Your task to perform on an android device: Search for a 3d printer on aliexpress Image 0: 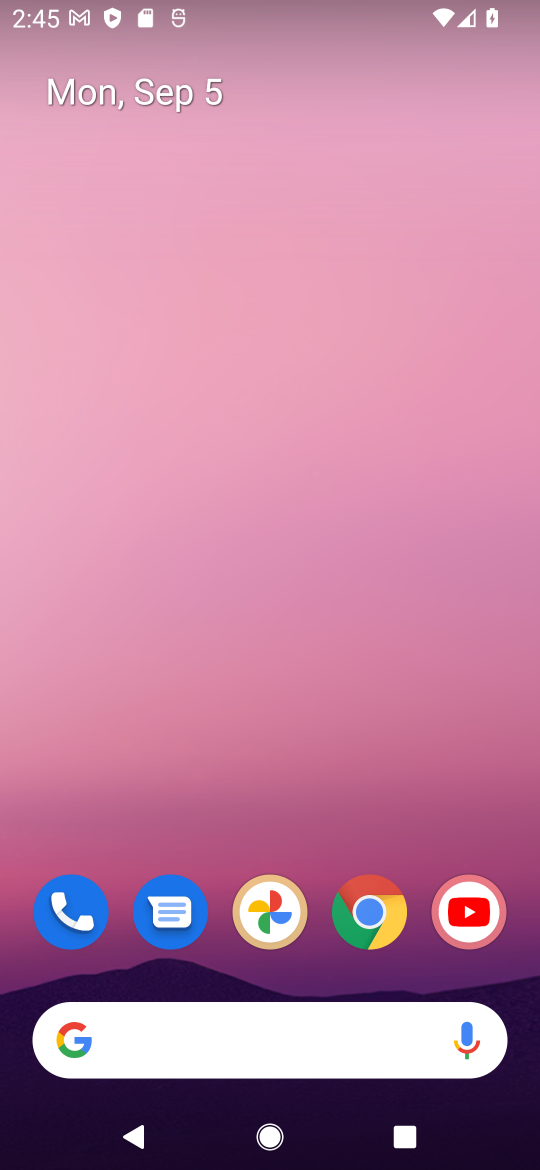
Step 0: click (381, 911)
Your task to perform on an android device: Search for a 3d printer on aliexpress Image 1: 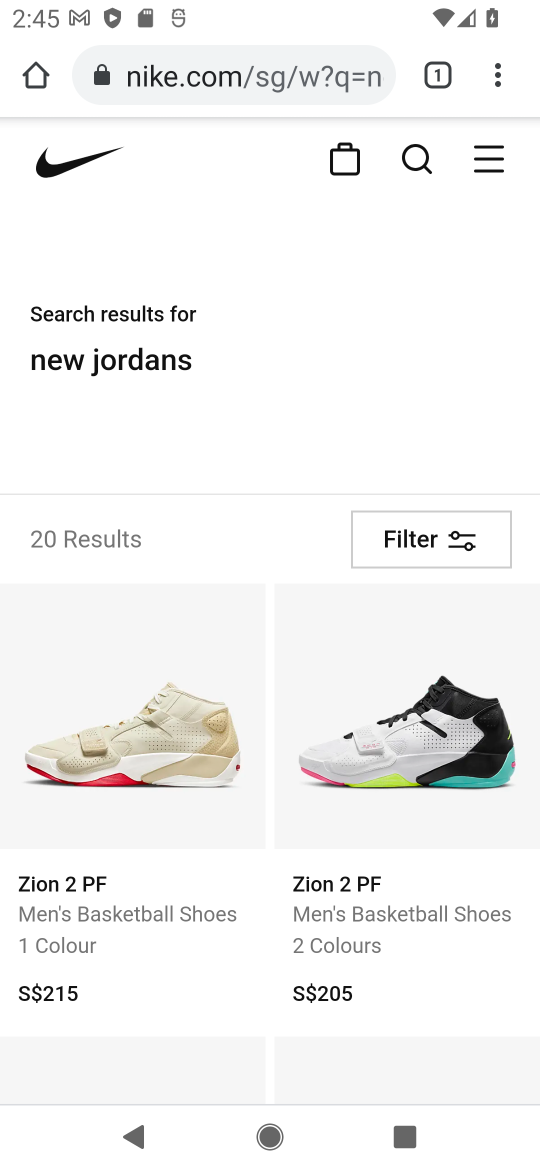
Step 1: click (221, 88)
Your task to perform on an android device: Search for a 3d printer on aliexpress Image 2: 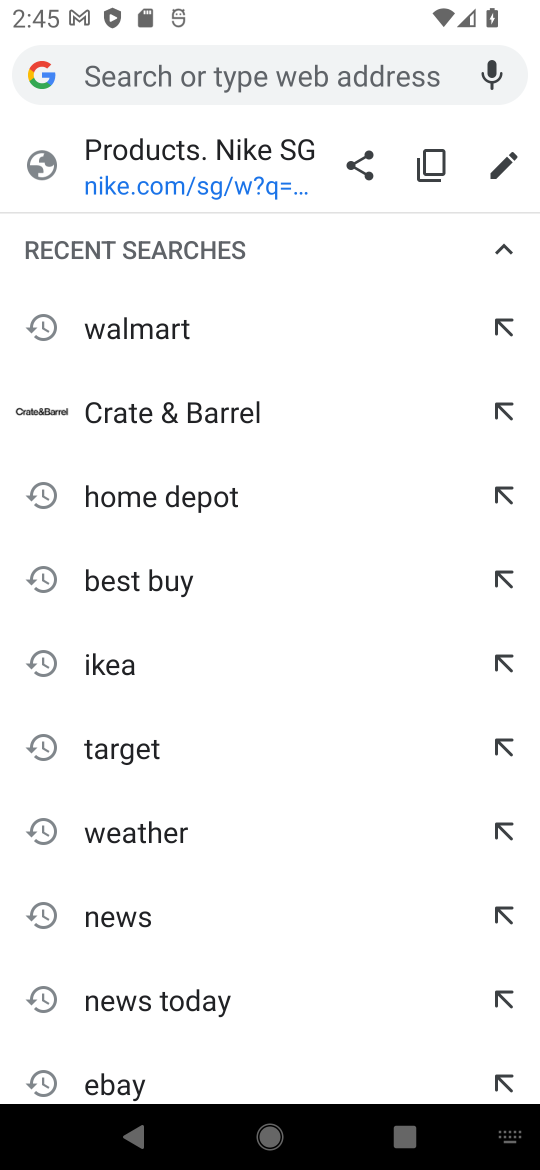
Step 2: type "aliexpress"
Your task to perform on an android device: Search for a 3d printer on aliexpress Image 3: 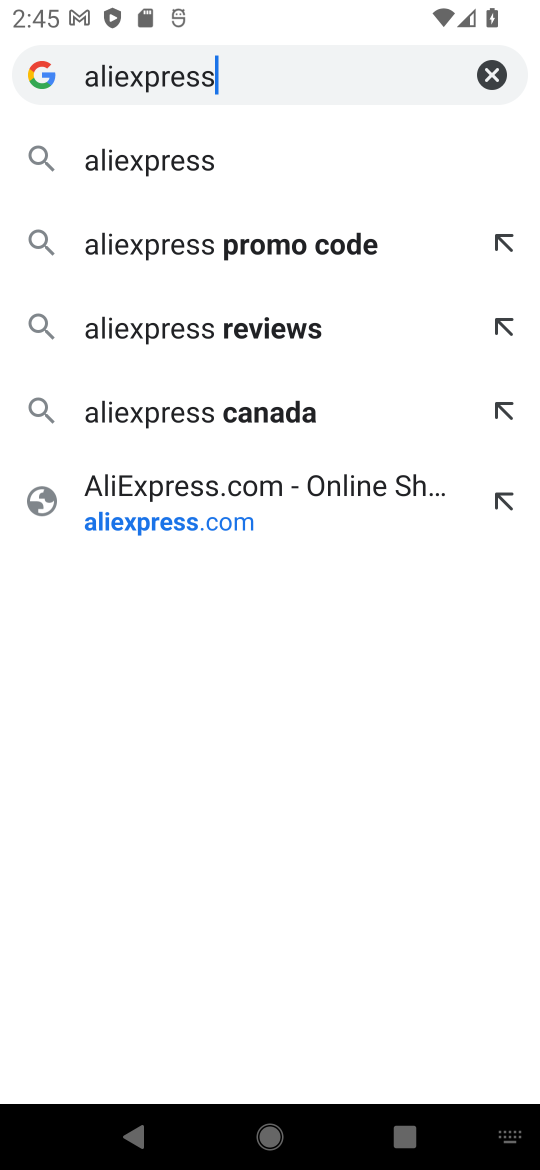
Step 3: press enter
Your task to perform on an android device: Search for a 3d printer on aliexpress Image 4: 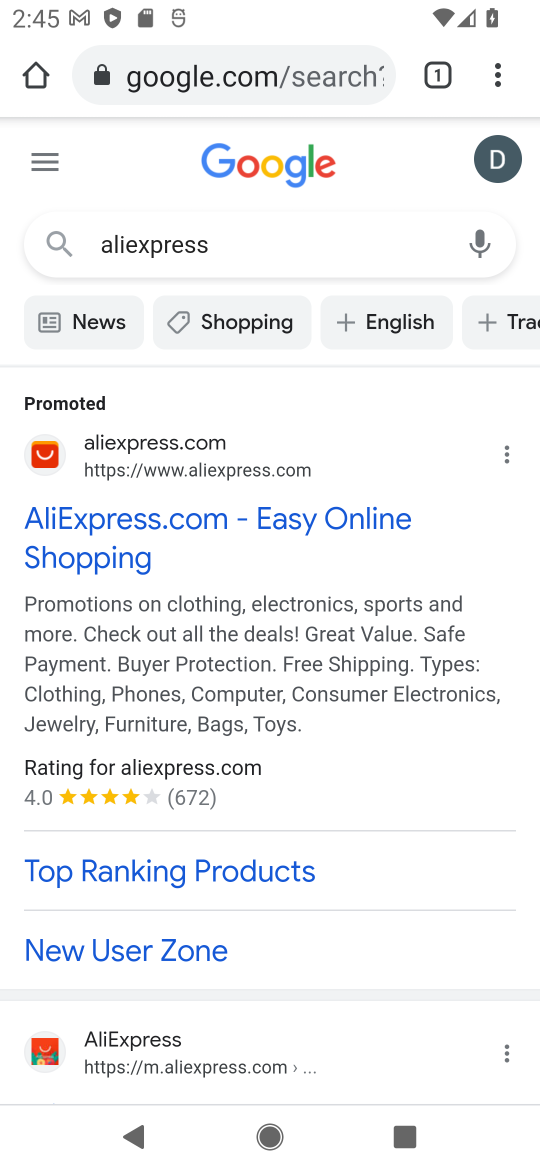
Step 4: click (103, 523)
Your task to perform on an android device: Search for a 3d printer on aliexpress Image 5: 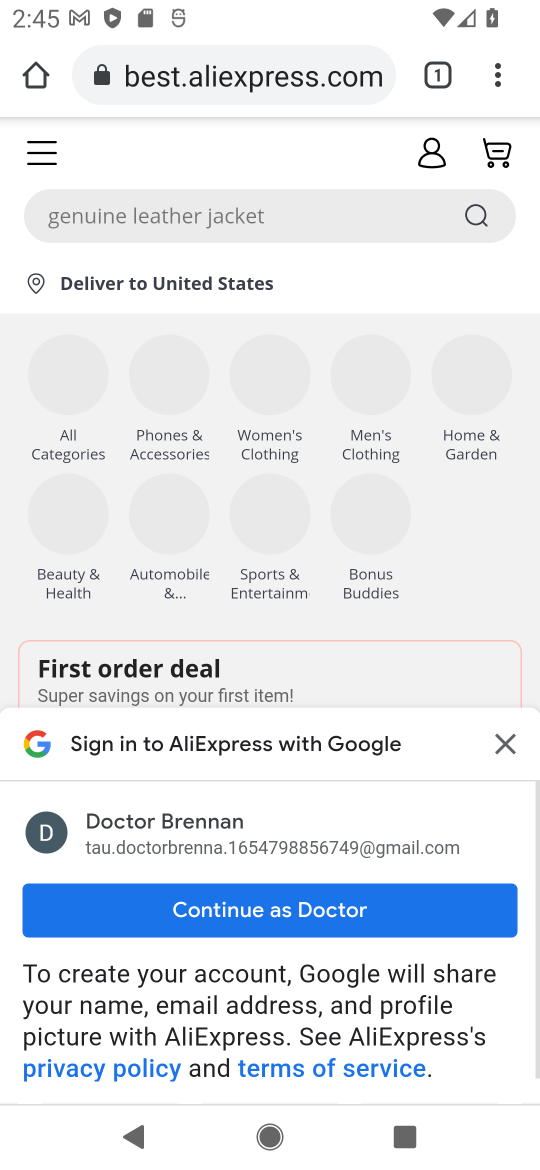
Step 5: click (243, 213)
Your task to perform on an android device: Search for a 3d printer on aliexpress Image 6: 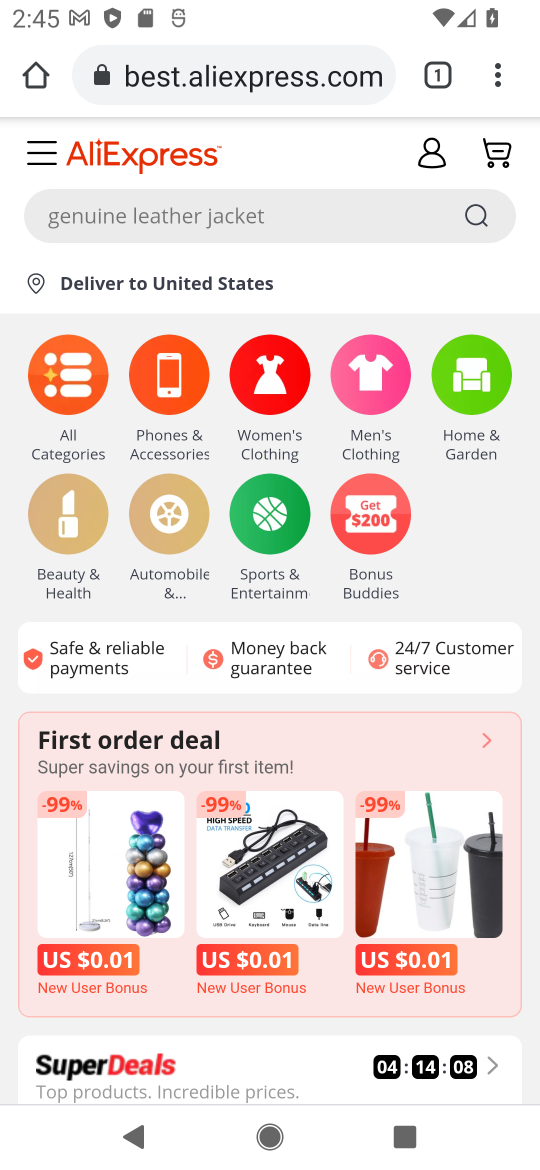
Step 6: click (243, 213)
Your task to perform on an android device: Search for a 3d printer on aliexpress Image 7: 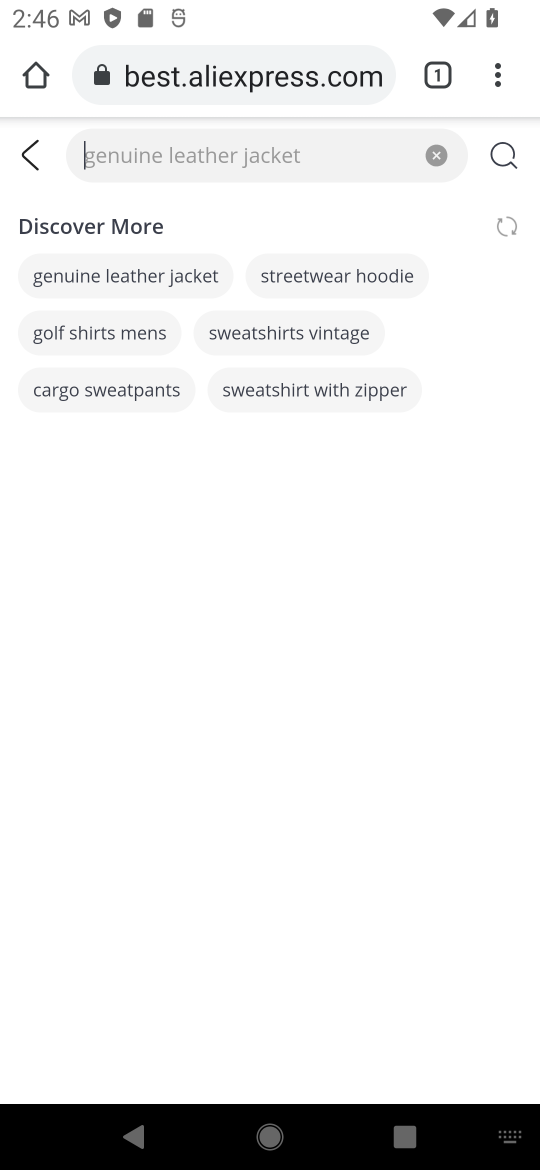
Step 7: type "3d printer"
Your task to perform on an android device: Search for a 3d printer on aliexpress Image 8: 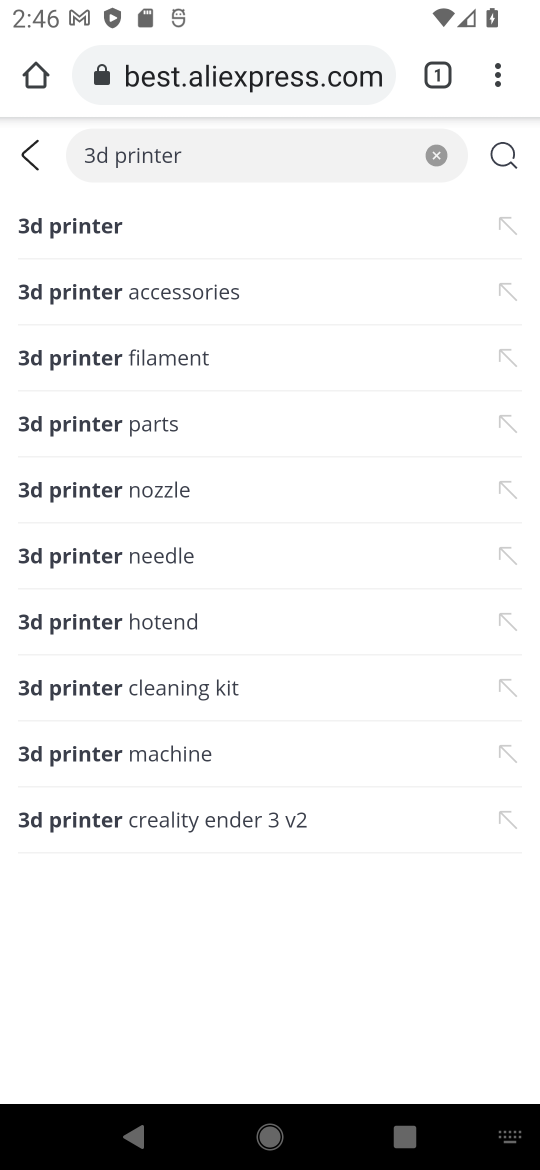
Step 8: press enter
Your task to perform on an android device: Search for a 3d printer on aliexpress Image 9: 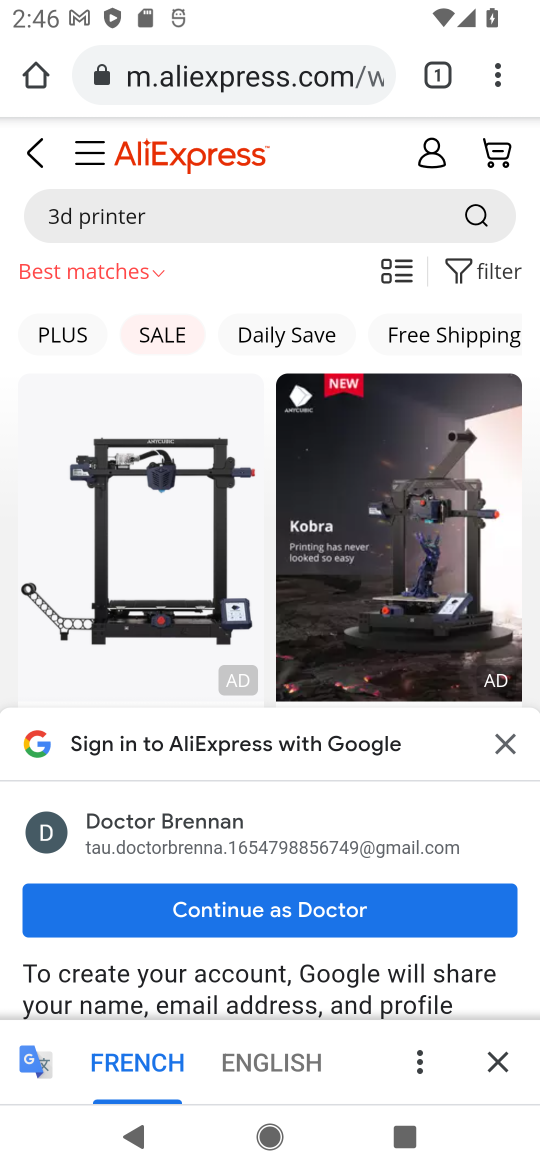
Step 9: click (426, 909)
Your task to perform on an android device: Search for a 3d printer on aliexpress Image 10: 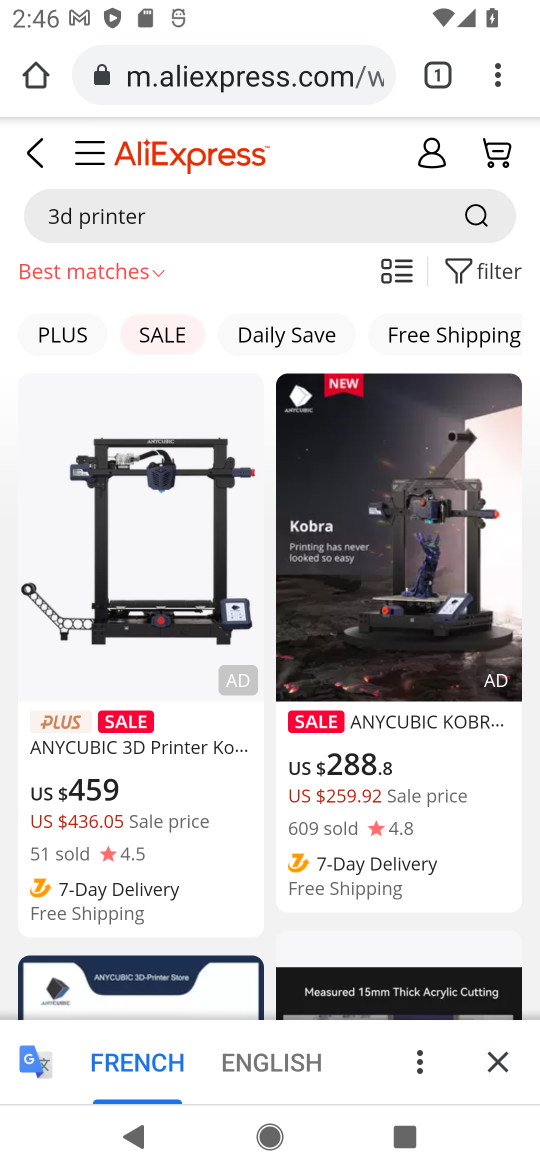
Step 10: task complete